Your task to perform on an android device: open app "Microsoft Authenticator" (install if not already installed), go to login, and select forgot password Image 0: 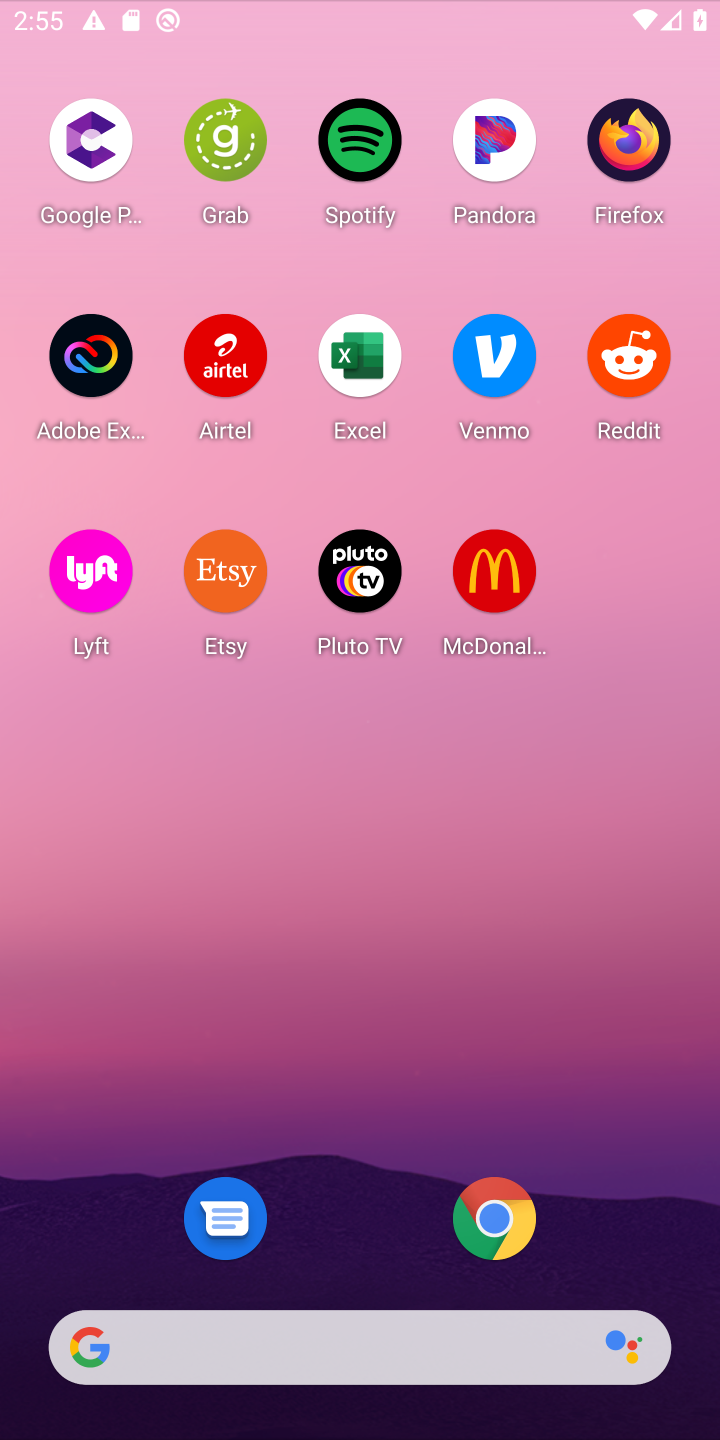
Step 0: click (581, 78)
Your task to perform on an android device: open app "Microsoft Authenticator" (install if not already installed), go to login, and select forgot password Image 1: 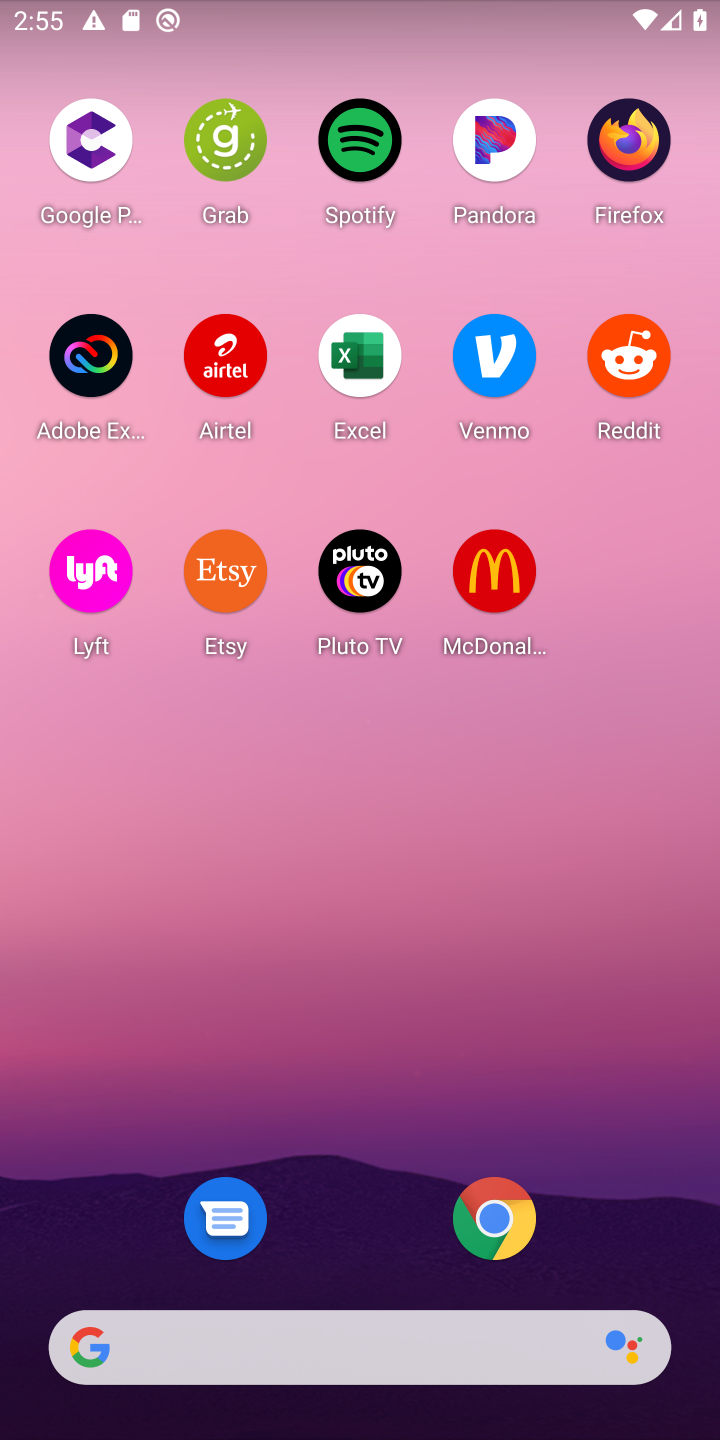
Step 1: drag from (340, 1116) to (395, 264)
Your task to perform on an android device: open app "Microsoft Authenticator" (install if not already installed), go to login, and select forgot password Image 2: 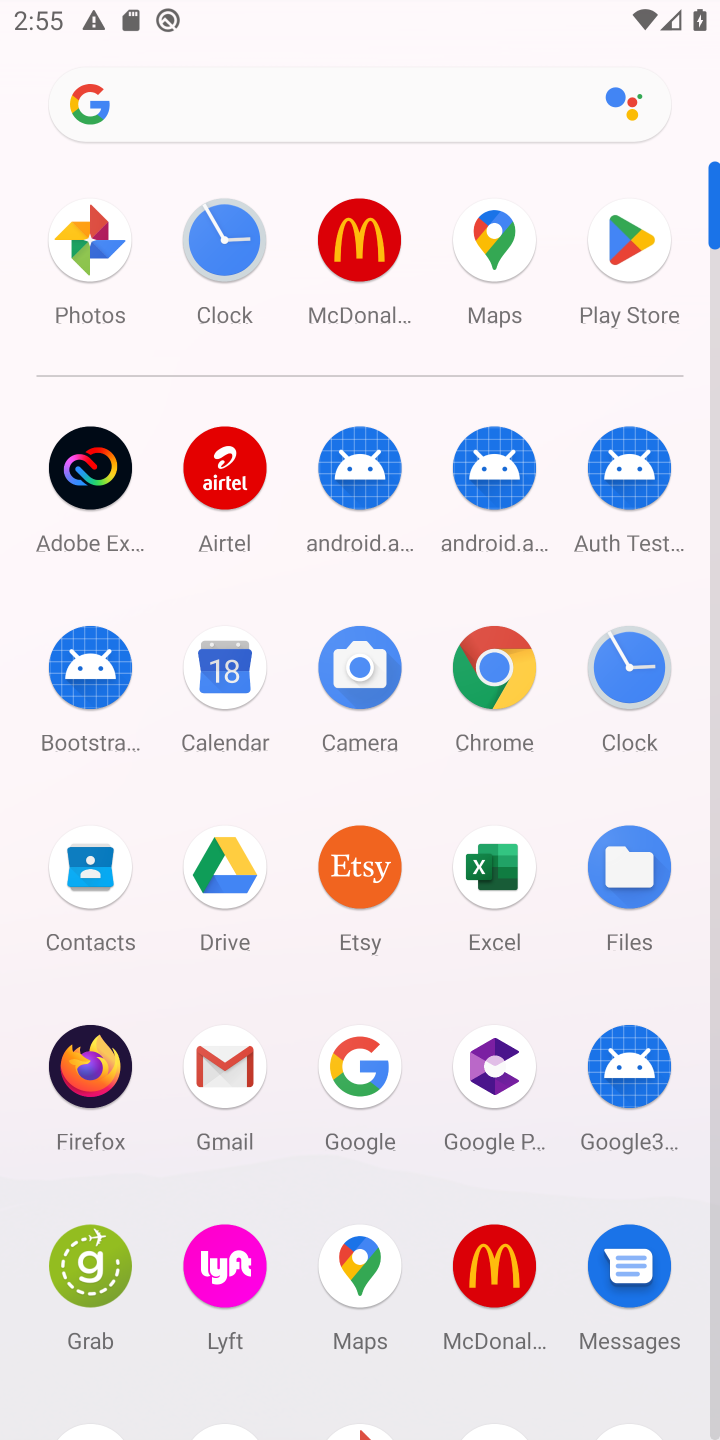
Step 2: click (631, 247)
Your task to perform on an android device: open app "Microsoft Authenticator" (install if not already installed), go to login, and select forgot password Image 3: 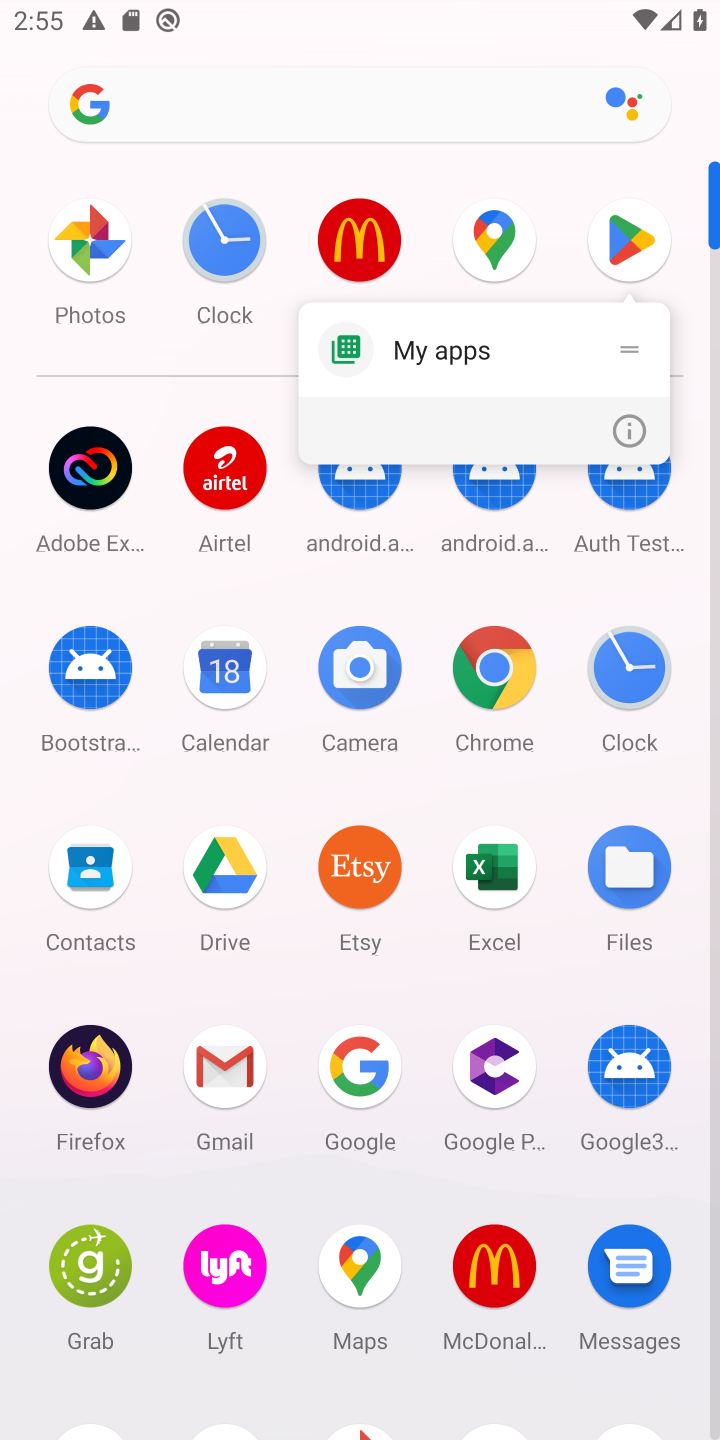
Step 3: click (627, 248)
Your task to perform on an android device: open app "Microsoft Authenticator" (install if not already installed), go to login, and select forgot password Image 4: 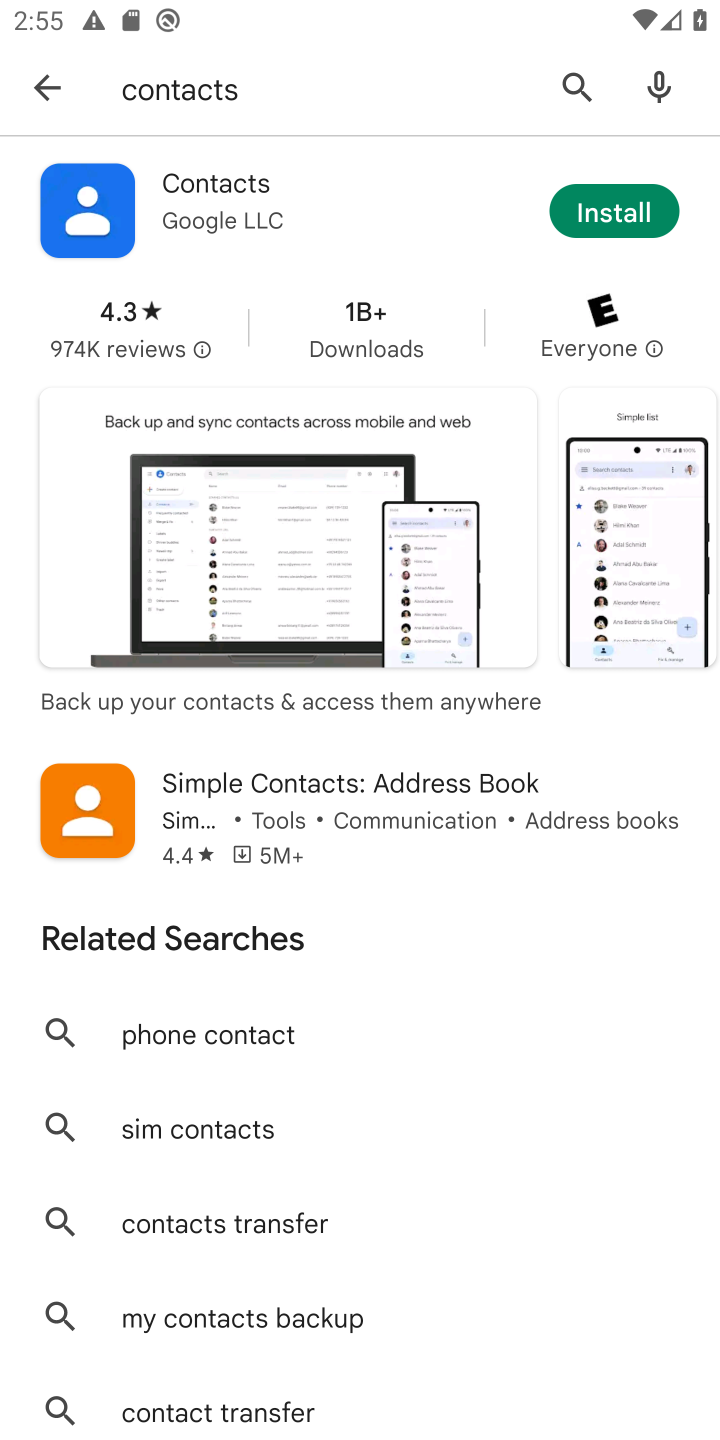
Step 4: click (578, 101)
Your task to perform on an android device: open app "Microsoft Authenticator" (install if not already installed), go to login, and select forgot password Image 5: 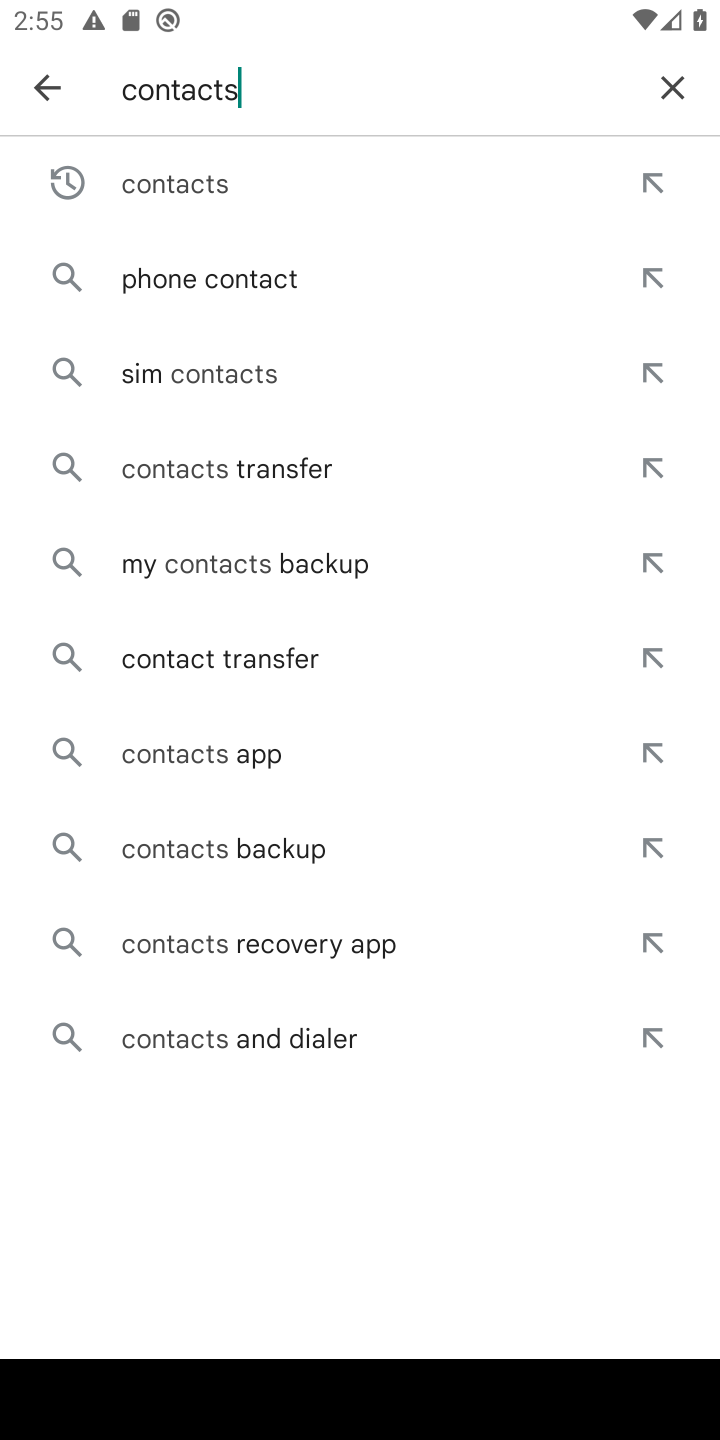
Step 5: click (674, 81)
Your task to perform on an android device: open app "Microsoft Authenticator" (install if not already installed), go to login, and select forgot password Image 6: 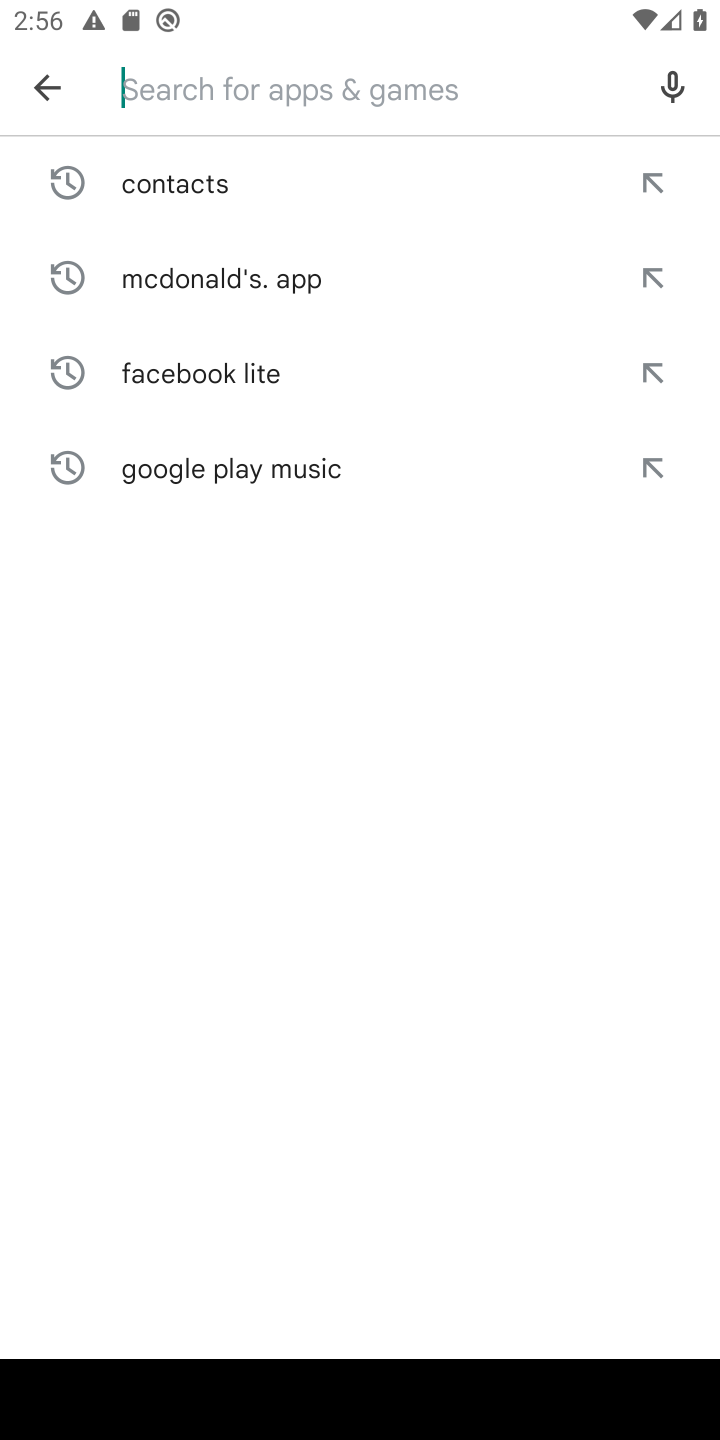
Step 6: type "Microsoft Authenticator"
Your task to perform on an android device: open app "Microsoft Authenticator" (install if not already installed), go to login, and select forgot password Image 7: 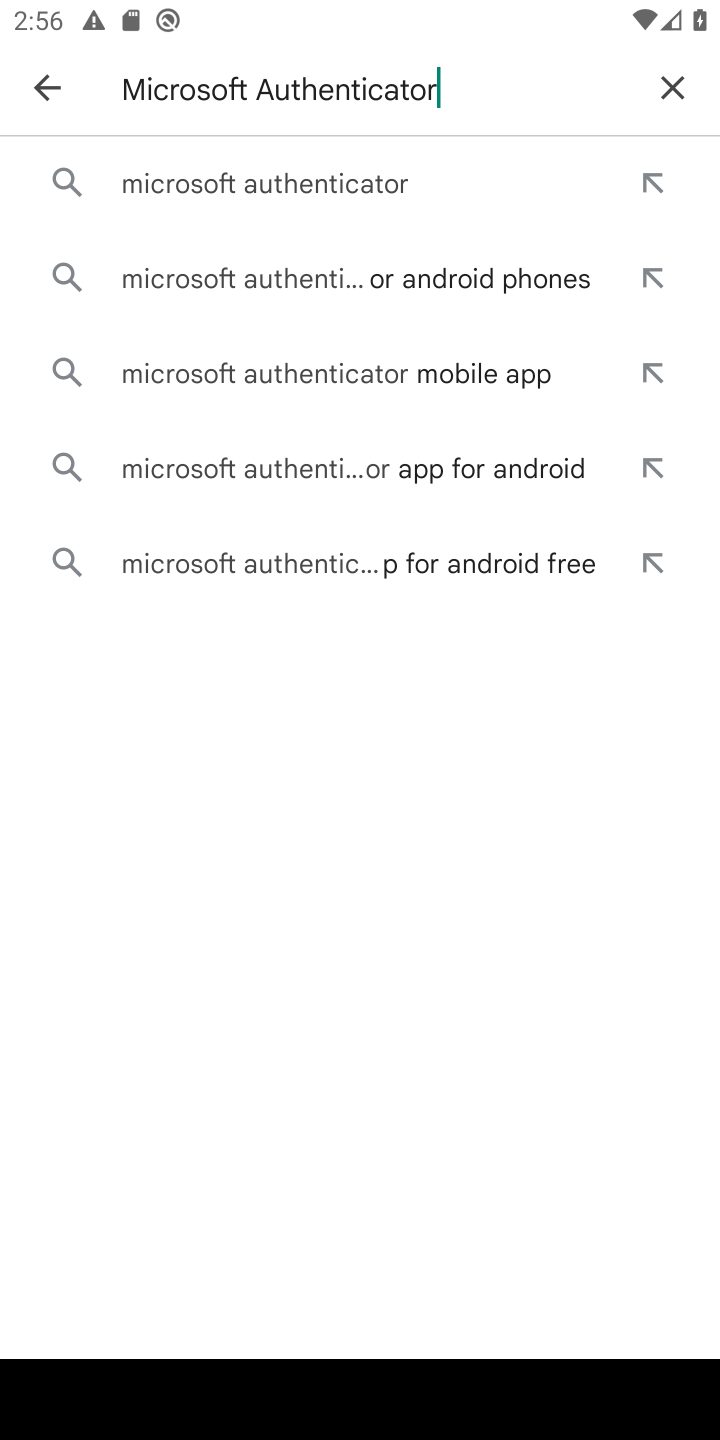
Step 7: click (338, 183)
Your task to perform on an android device: open app "Microsoft Authenticator" (install if not already installed), go to login, and select forgot password Image 8: 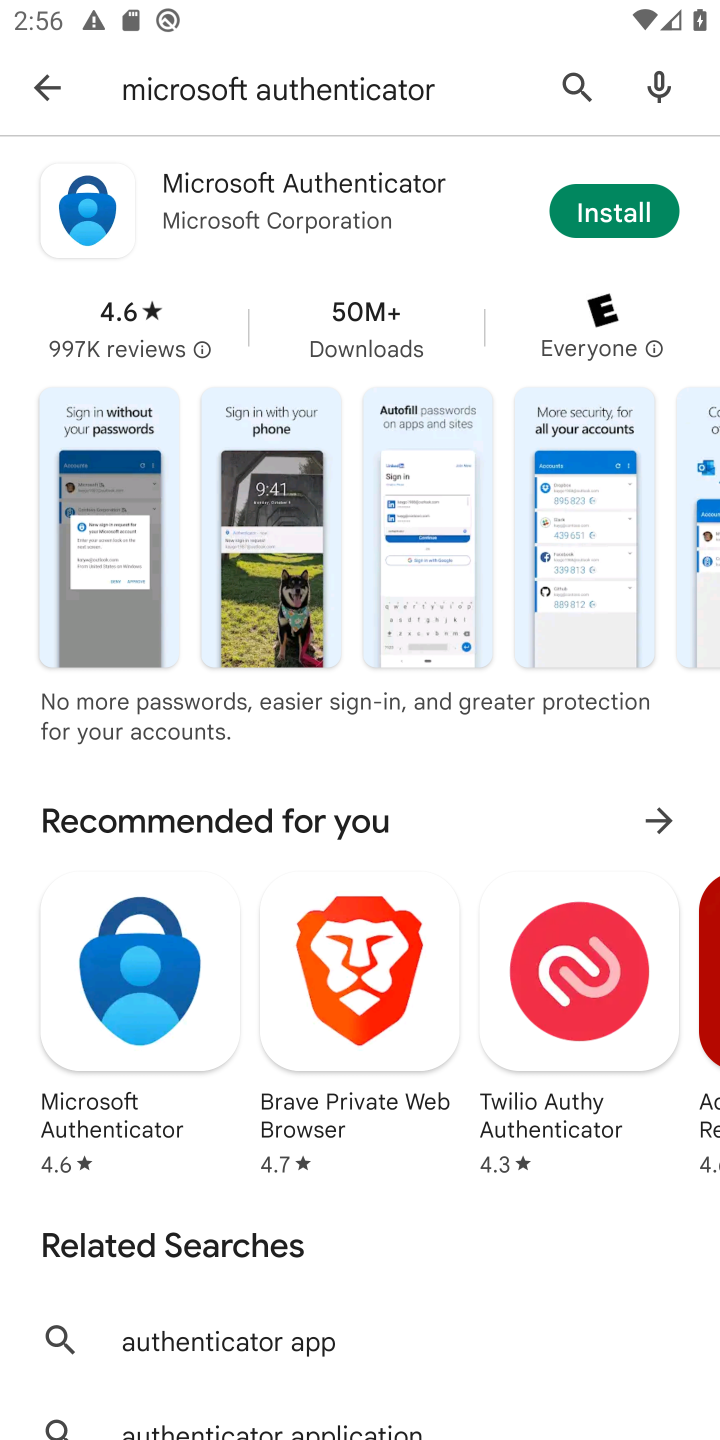
Step 8: click (628, 211)
Your task to perform on an android device: open app "Microsoft Authenticator" (install if not already installed), go to login, and select forgot password Image 9: 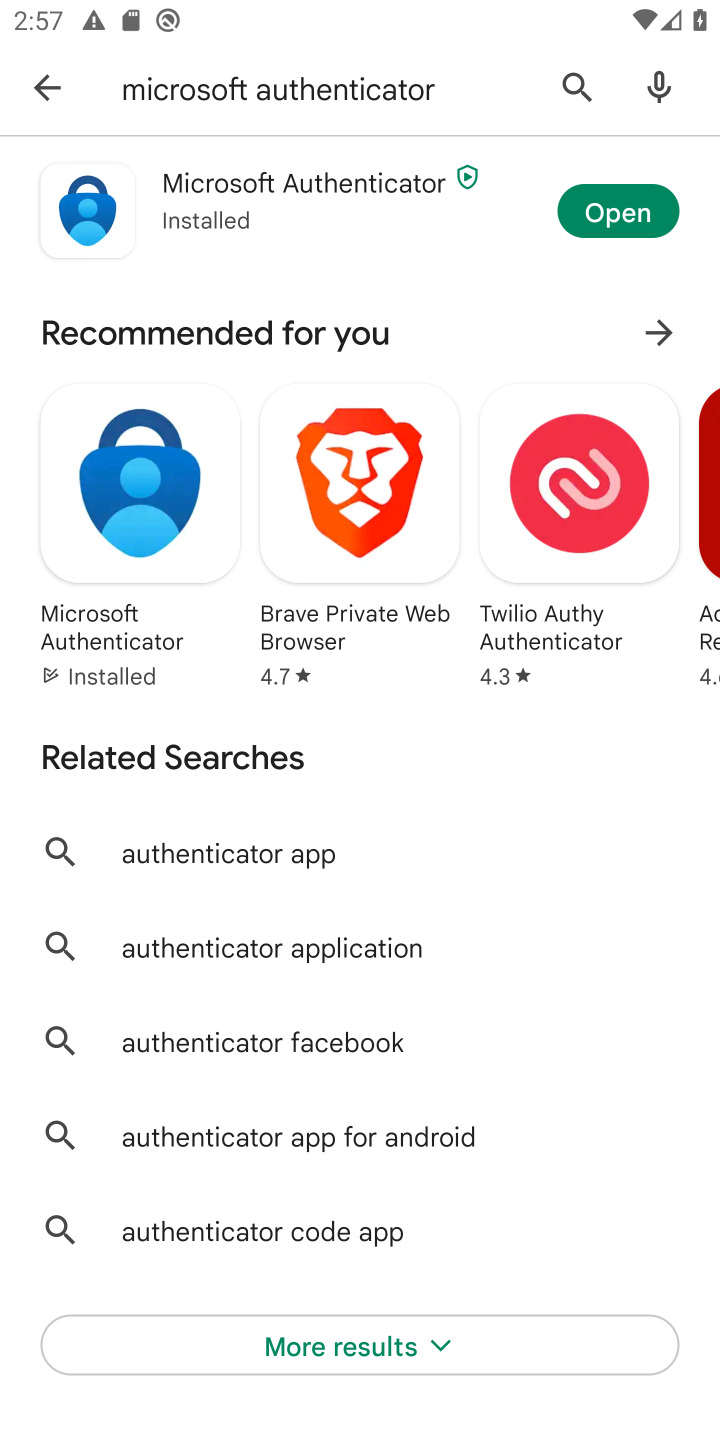
Step 9: click (628, 211)
Your task to perform on an android device: open app "Microsoft Authenticator" (install if not already installed), go to login, and select forgot password Image 10: 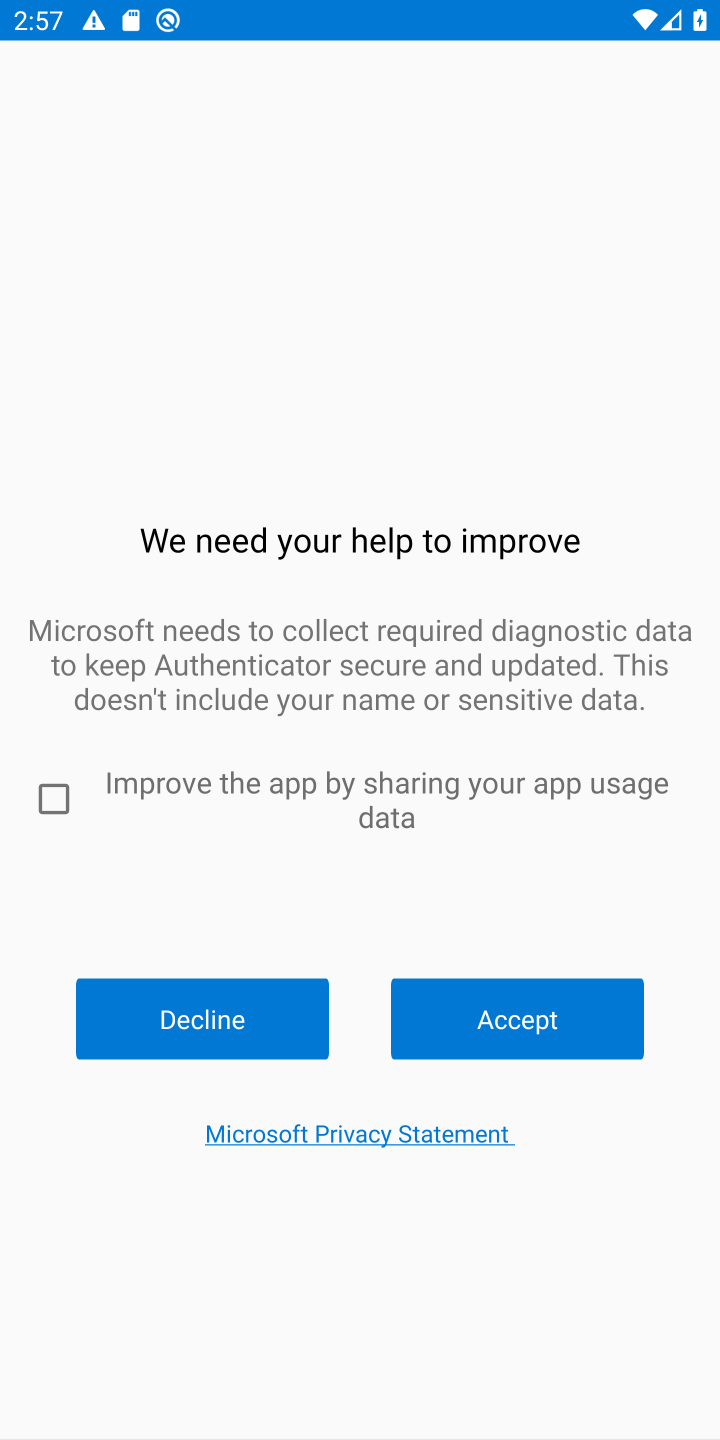
Step 10: task complete